Your task to perform on an android device: turn on javascript in the chrome app Image 0: 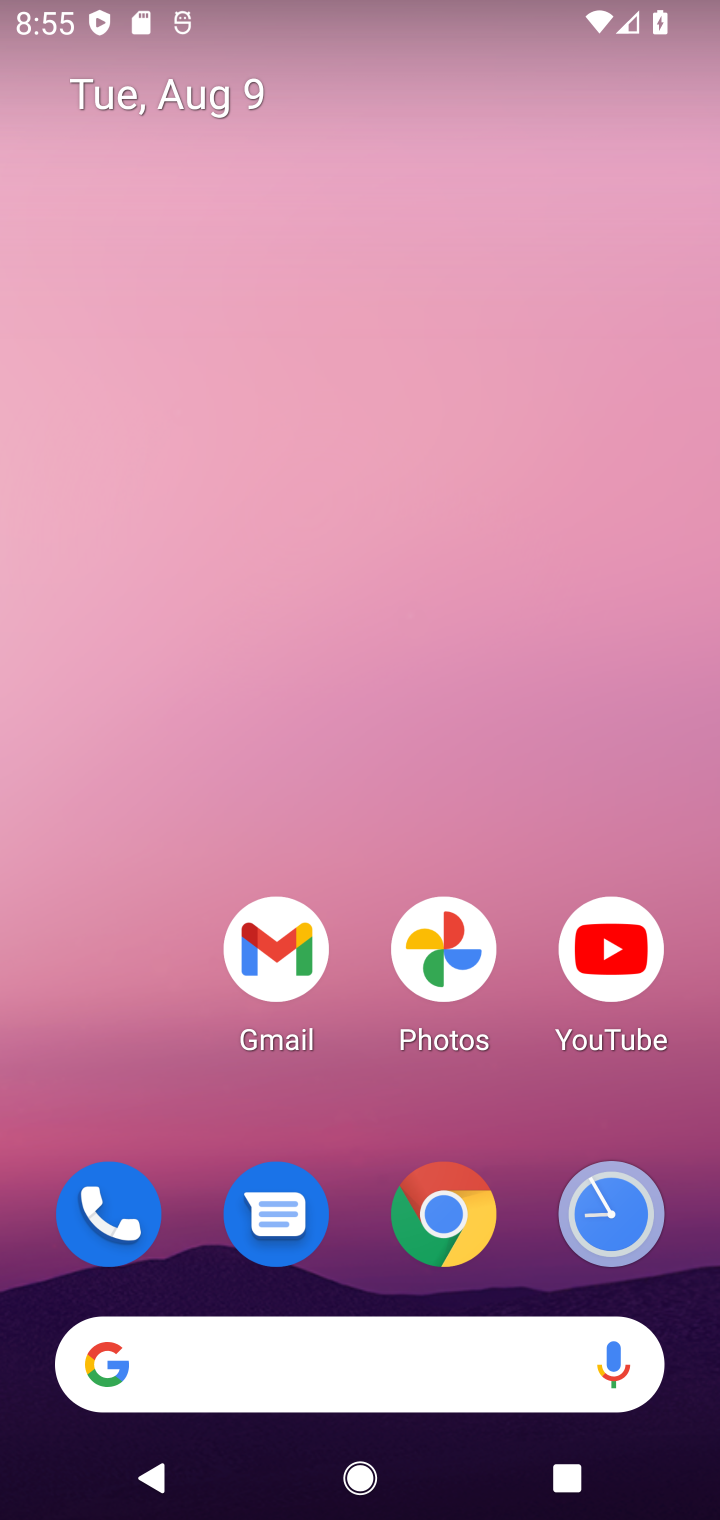
Step 0: click (444, 1189)
Your task to perform on an android device: turn on javascript in the chrome app Image 1: 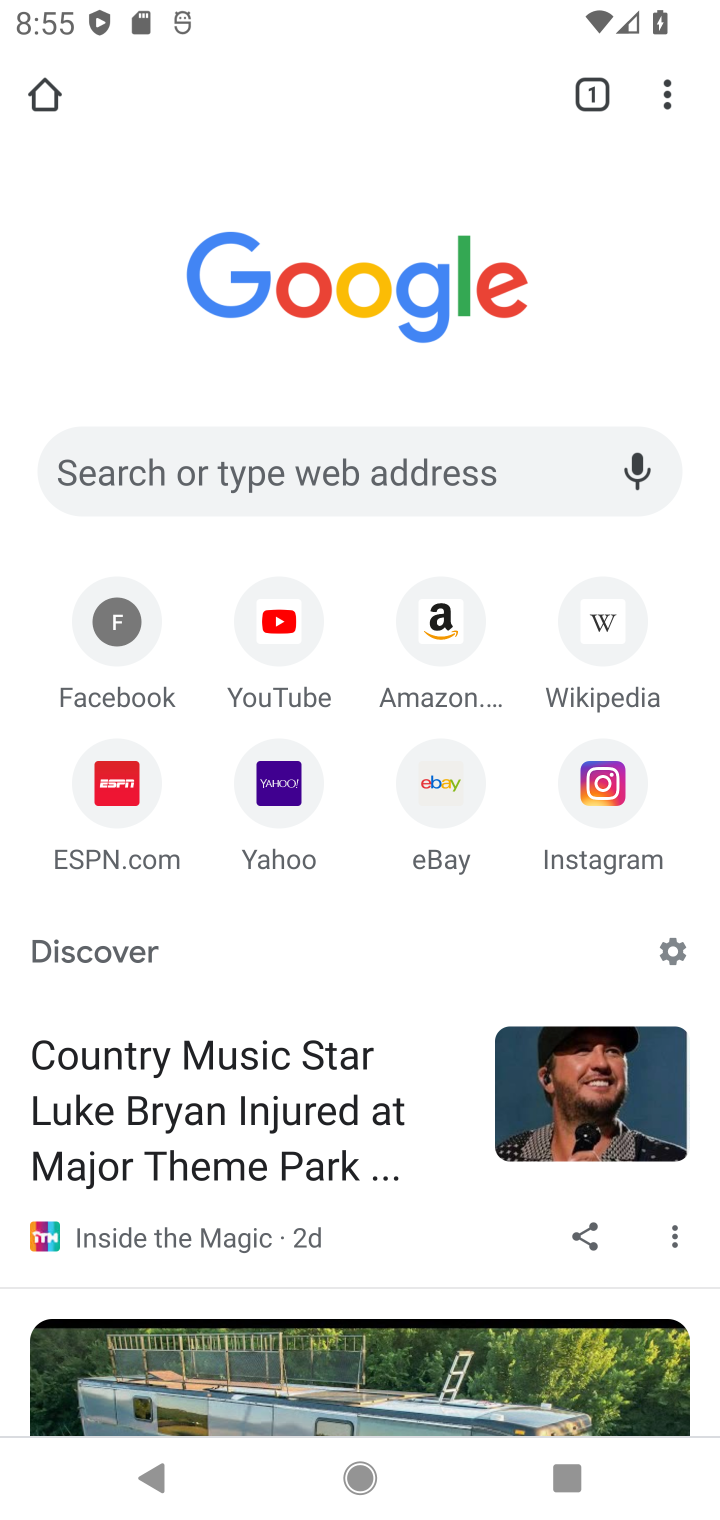
Step 1: click (656, 94)
Your task to perform on an android device: turn on javascript in the chrome app Image 2: 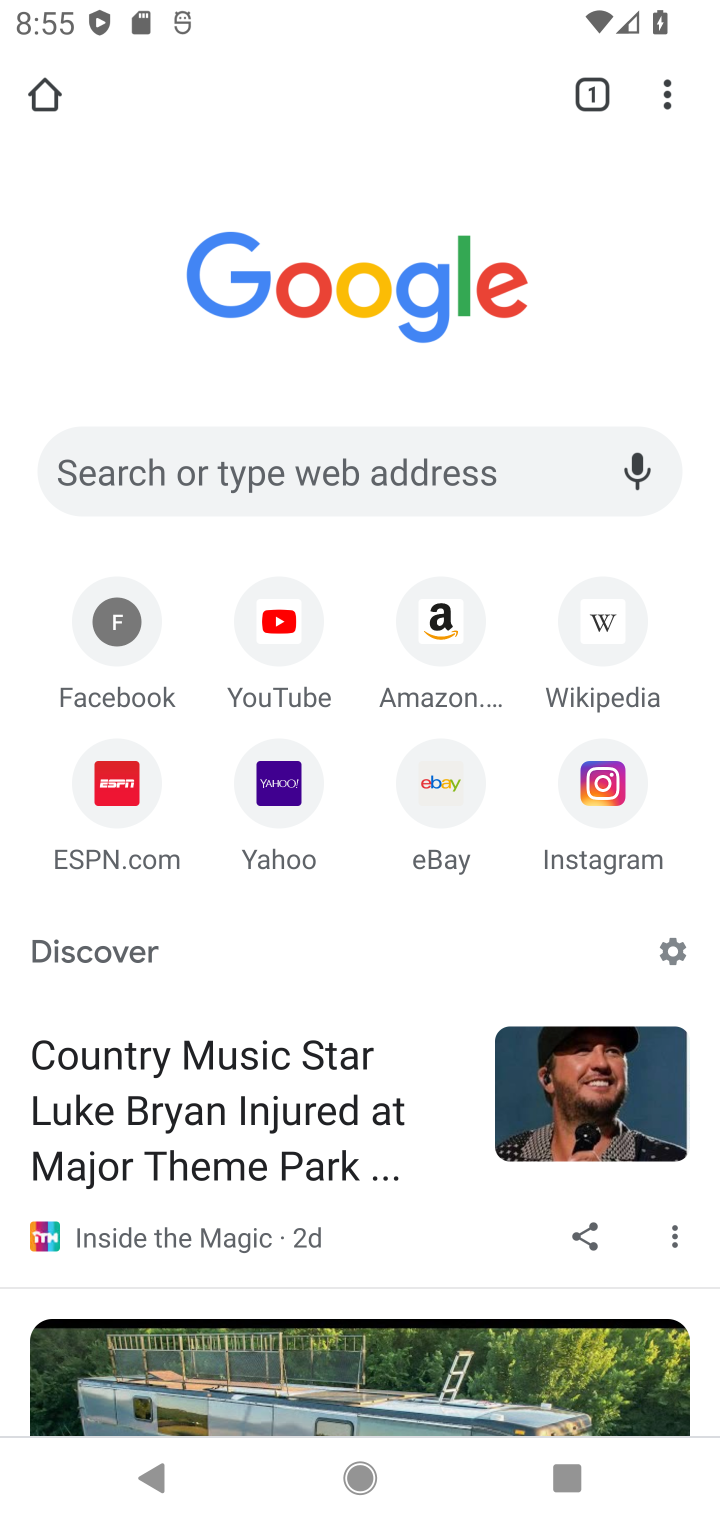
Step 2: click (673, 93)
Your task to perform on an android device: turn on javascript in the chrome app Image 3: 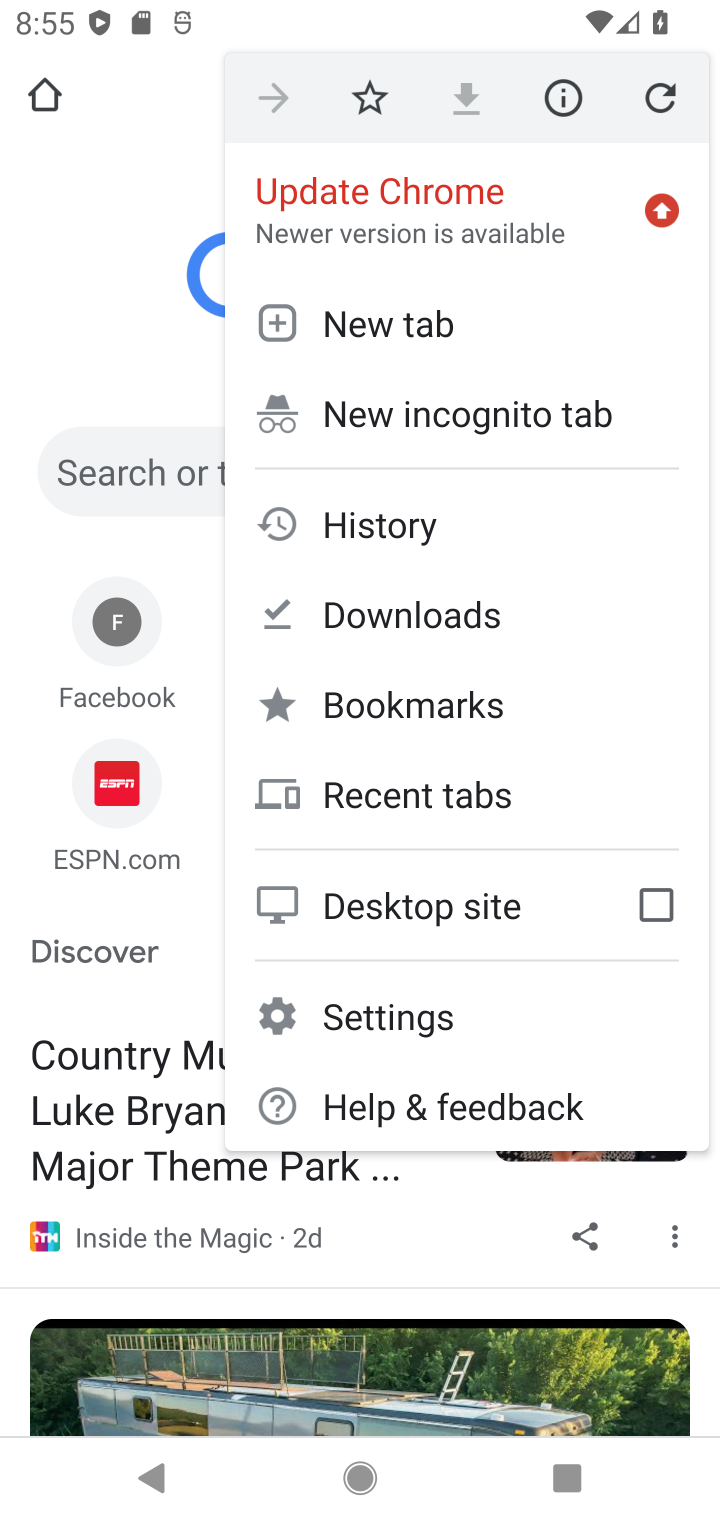
Step 3: click (366, 1012)
Your task to perform on an android device: turn on javascript in the chrome app Image 4: 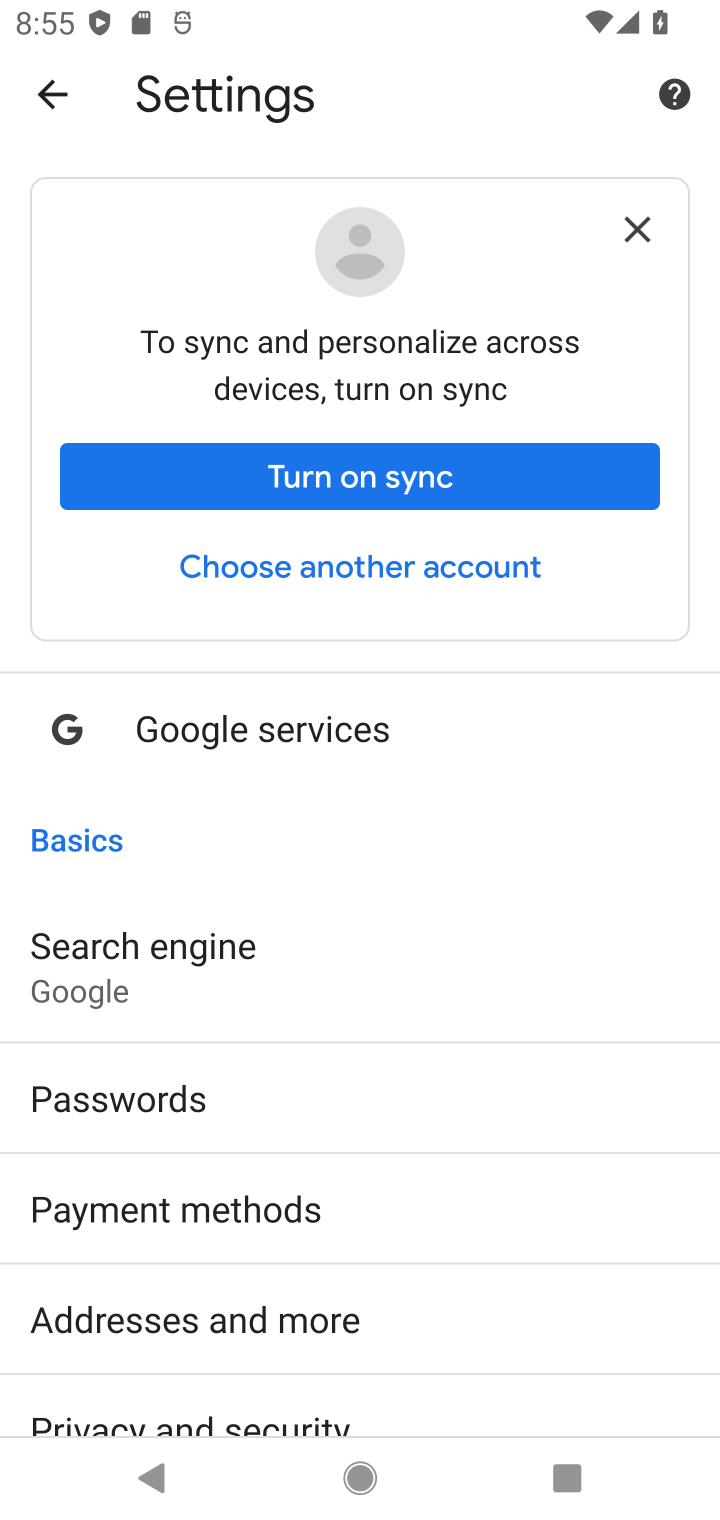
Step 4: drag from (416, 1092) to (428, 289)
Your task to perform on an android device: turn on javascript in the chrome app Image 5: 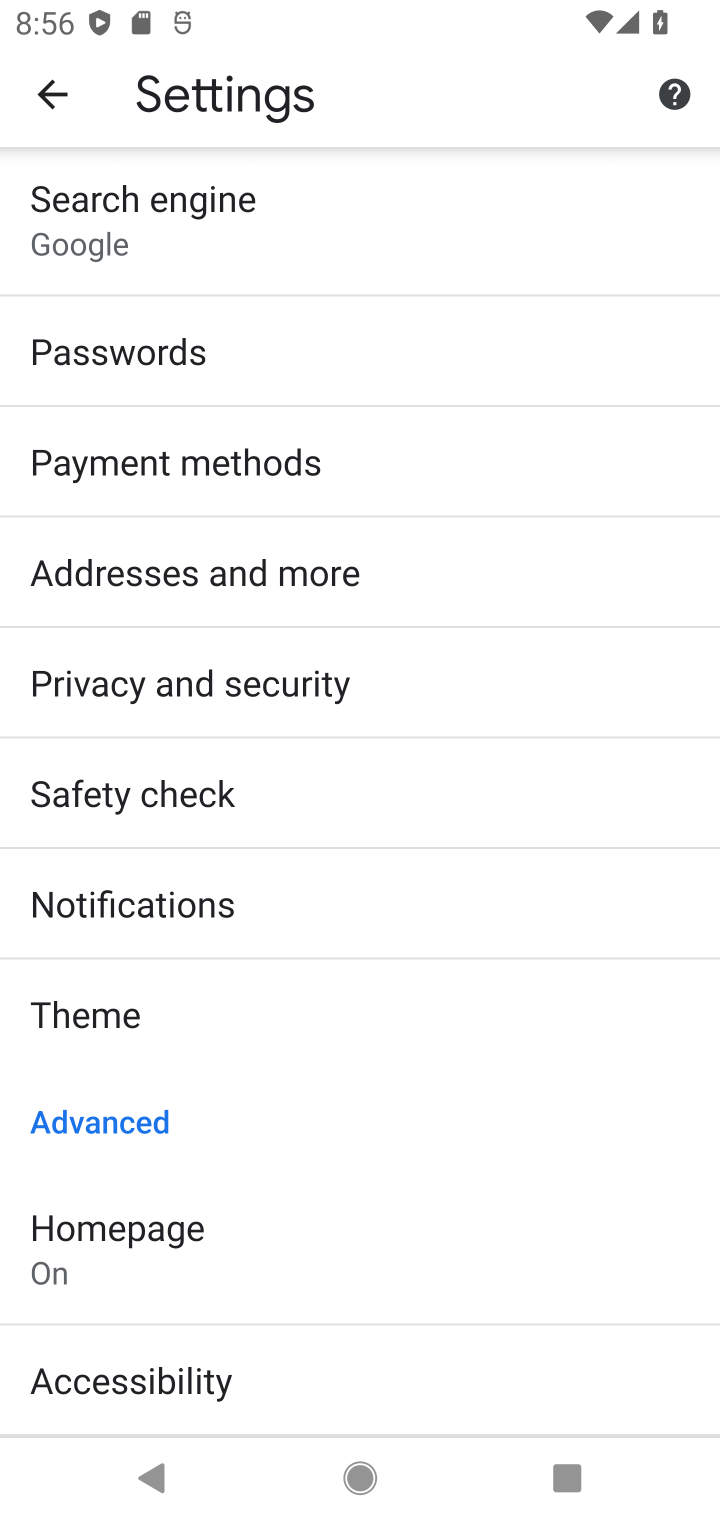
Step 5: drag from (338, 1218) to (415, 109)
Your task to perform on an android device: turn on javascript in the chrome app Image 6: 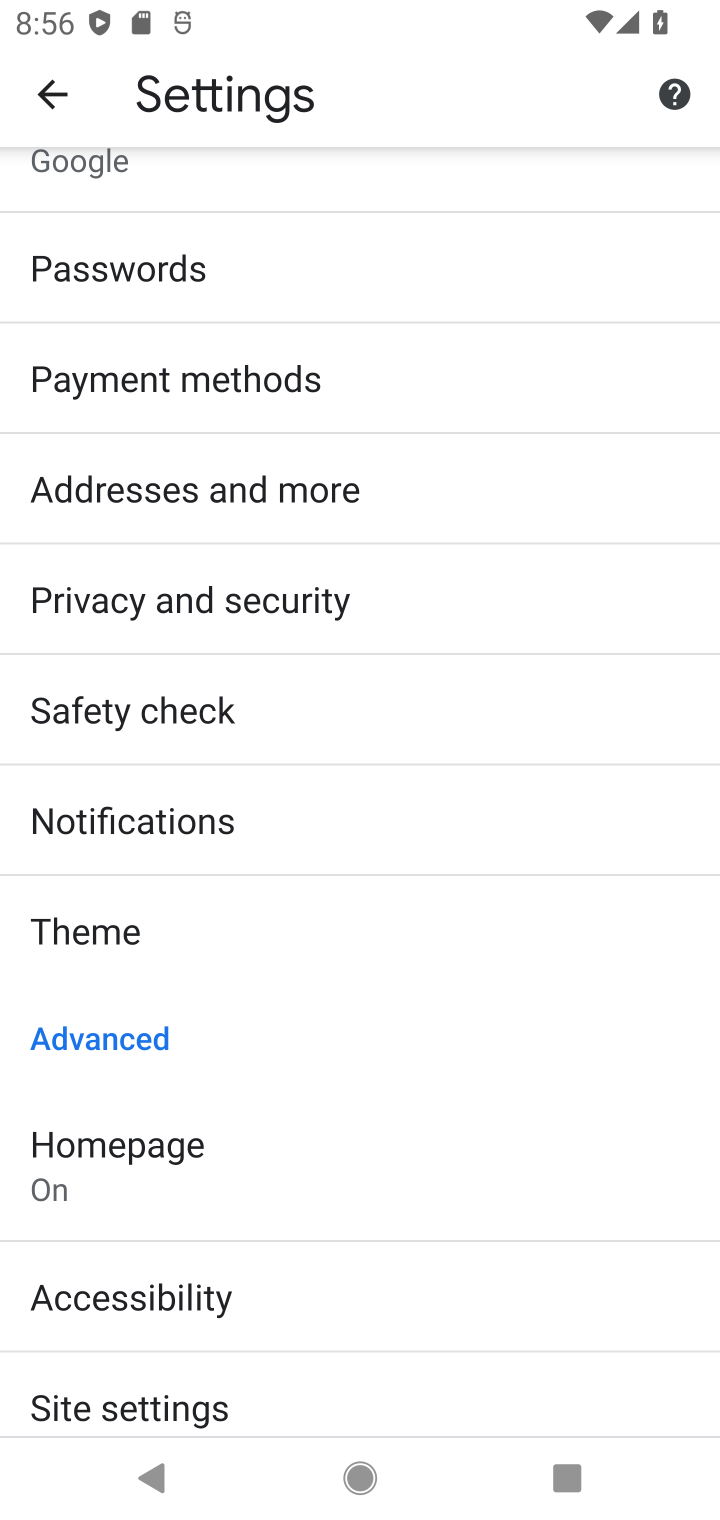
Step 6: click (195, 1400)
Your task to perform on an android device: turn on javascript in the chrome app Image 7: 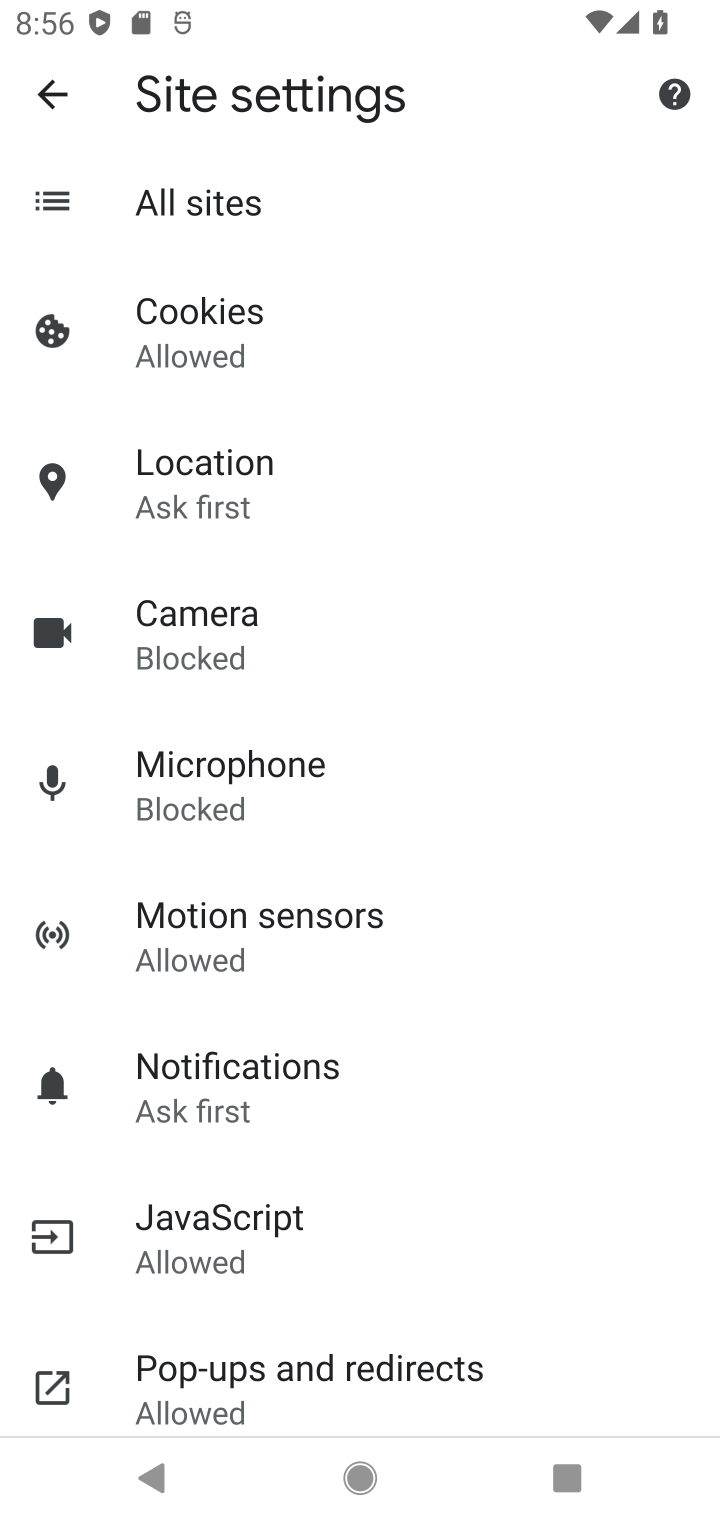
Step 7: click (241, 1237)
Your task to perform on an android device: turn on javascript in the chrome app Image 8: 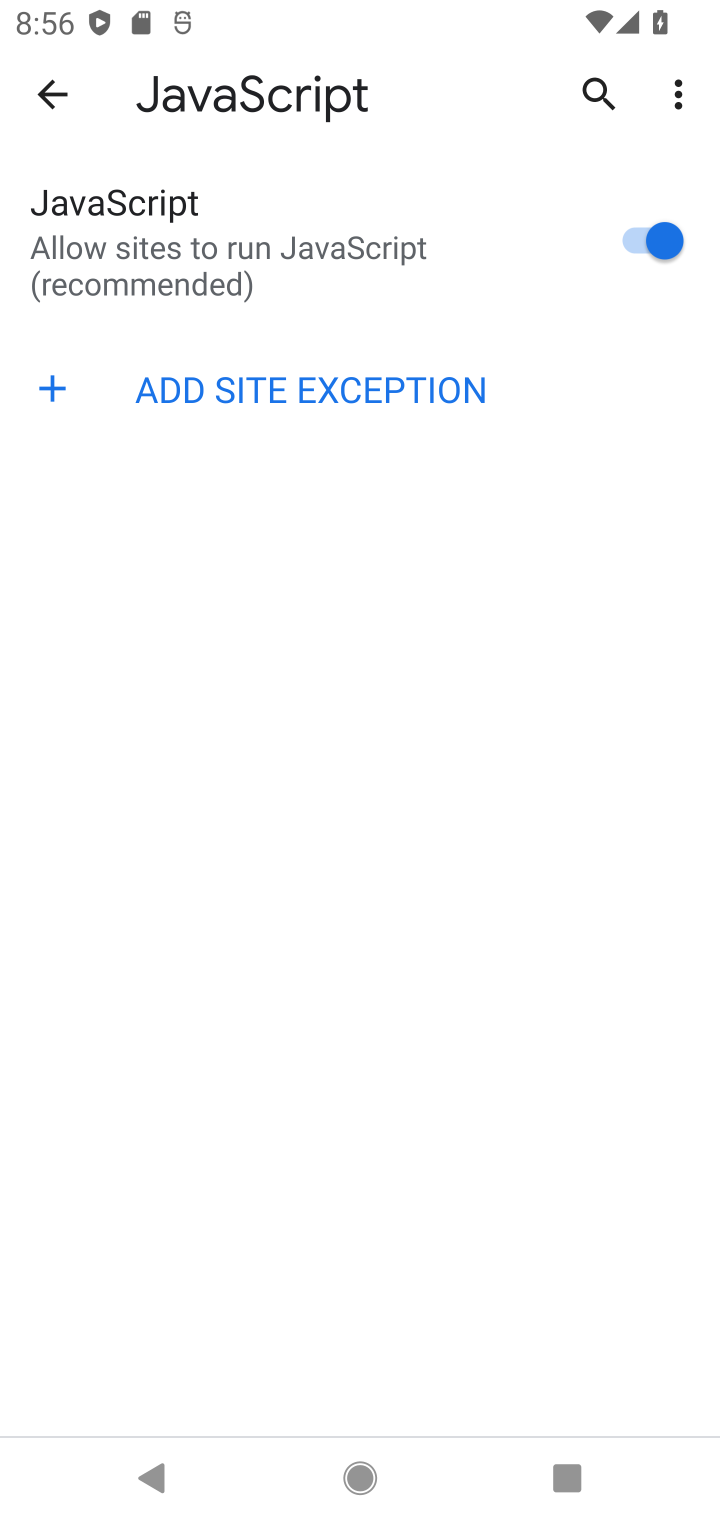
Step 8: task complete